Your task to perform on an android device: see sites visited before in the chrome app Image 0: 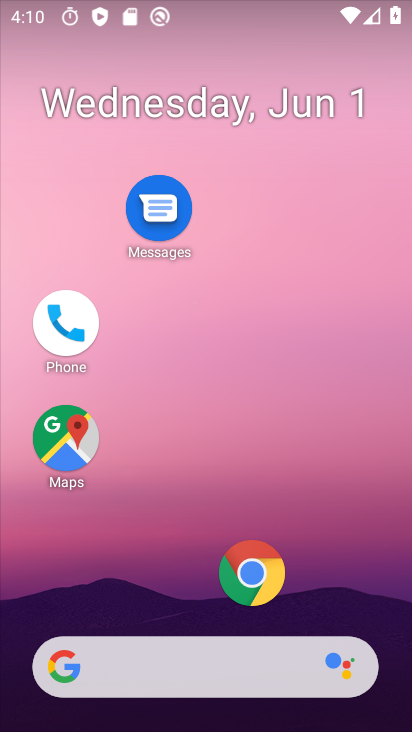
Step 0: click (257, 561)
Your task to perform on an android device: see sites visited before in the chrome app Image 1: 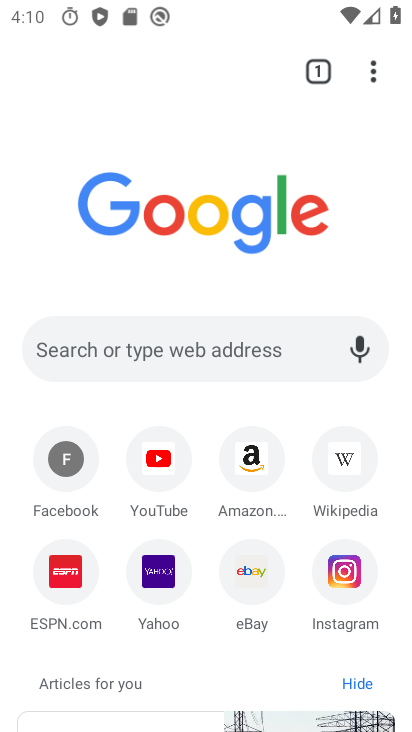
Step 1: click (380, 59)
Your task to perform on an android device: see sites visited before in the chrome app Image 2: 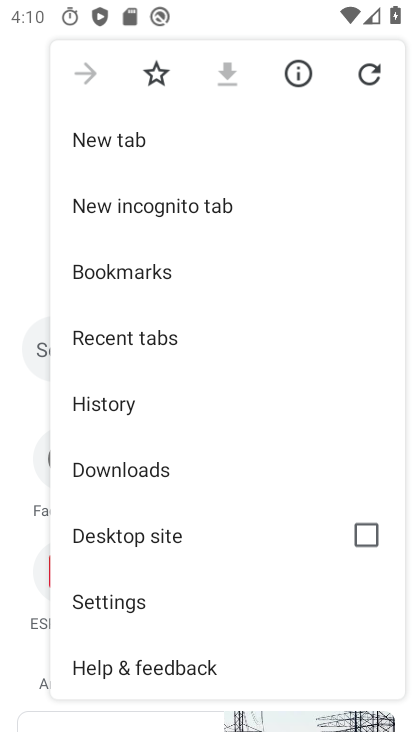
Step 2: click (161, 329)
Your task to perform on an android device: see sites visited before in the chrome app Image 3: 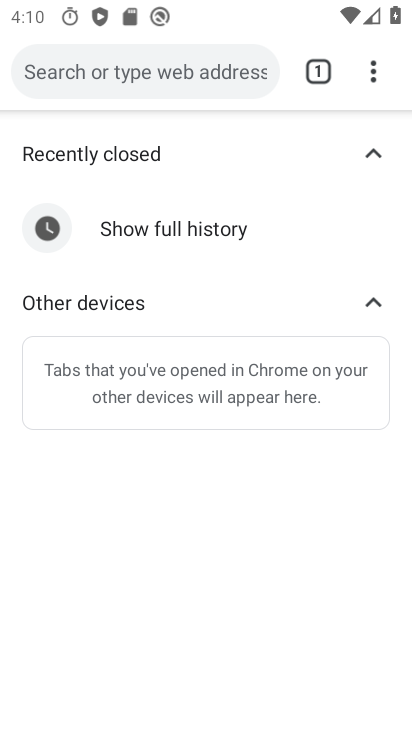
Step 3: task complete